Your task to perform on an android device: change text size in settings app Image 0: 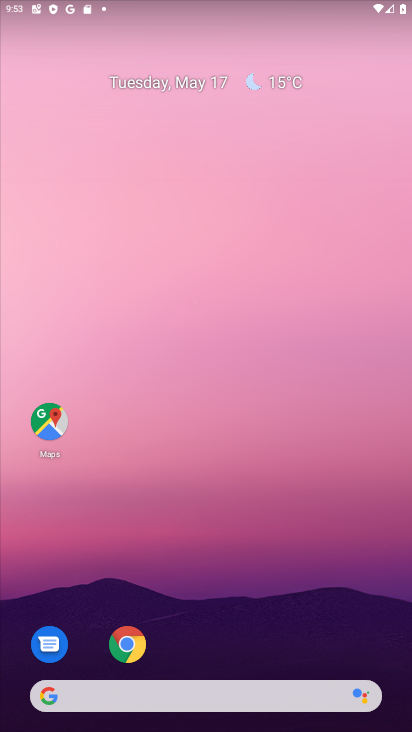
Step 0: drag from (183, 621) to (223, 258)
Your task to perform on an android device: change text size in settings app Image 1: 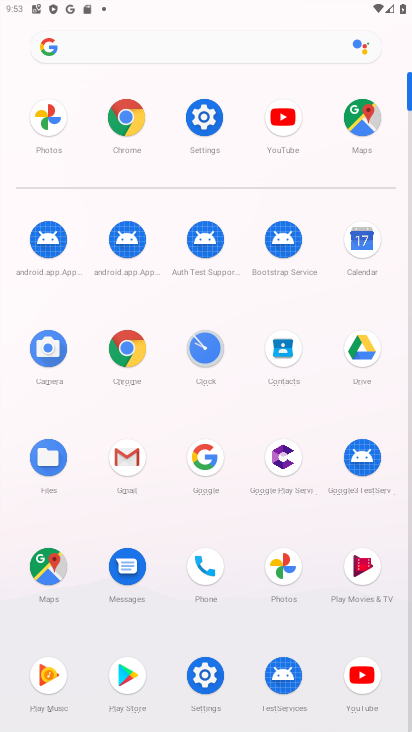
Step 1: click (198, 132)
Your task to perform on an android device: change text size in settings app Image 2: 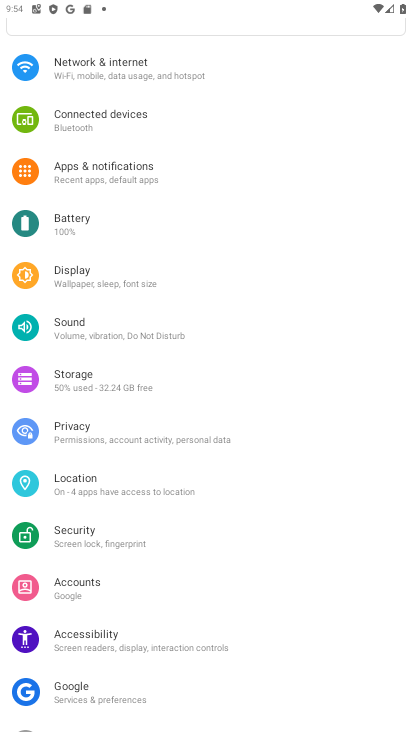
Step 2: click (99, 282)
Your task to perform on an android device: change text size in settings app Image 3: 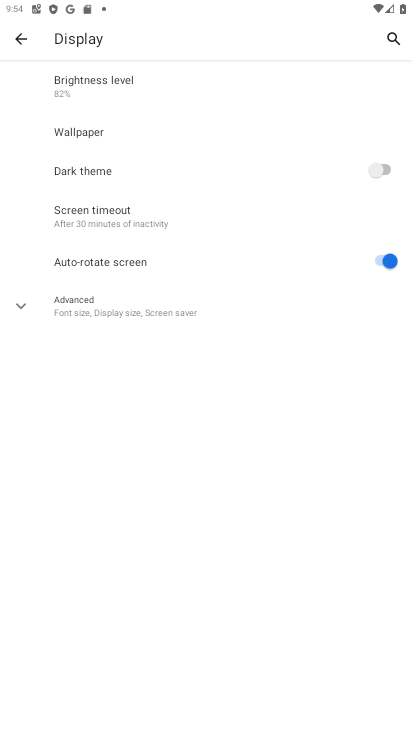
Step 3: click (78, 311)
Your task to perform on an android device: change text size in settings app Image 4: 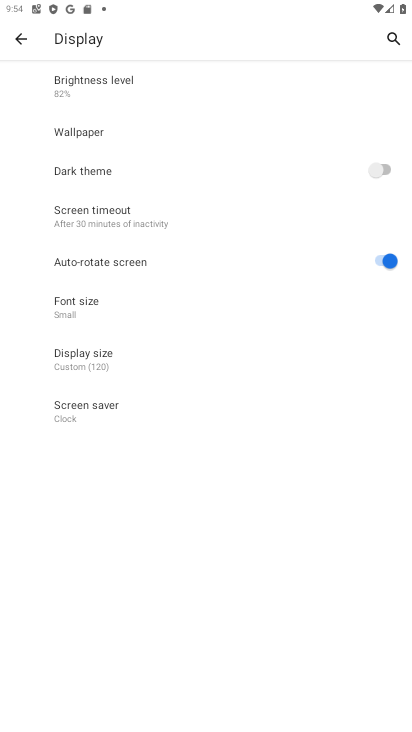
Step 4: click (78, 311)
Your task to perform on an android device: change text size in settings app Image 5: 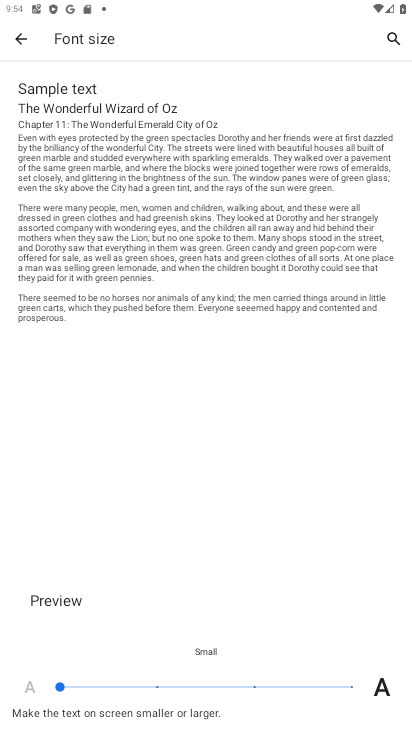
Step 5: click (159, 685)
Your task to perform on an android device: change text size in settings app Image 6: 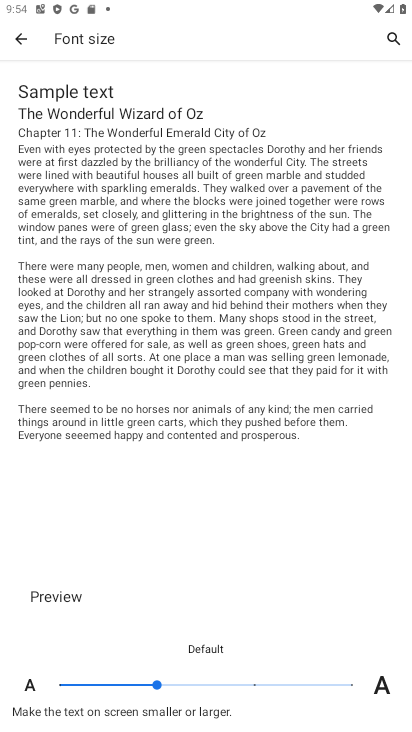
Step 6: task complete